Your task to perform on an android device: What's the weather going to be this weekend? Image 0: 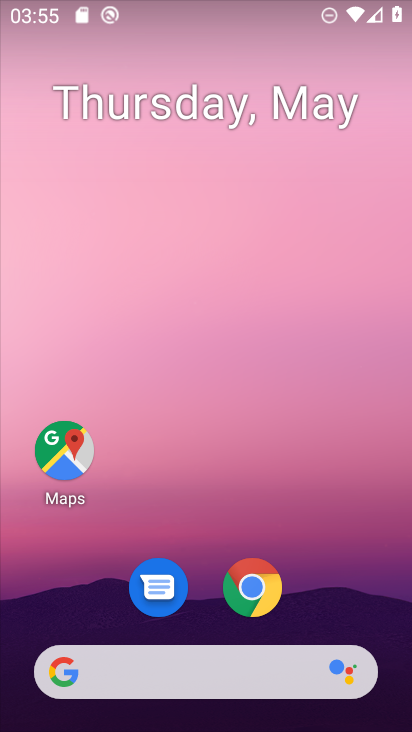
Step 0: click (234, 674)
Your task to perform on an android device: What's the weather going to be this weekend? Image 1: 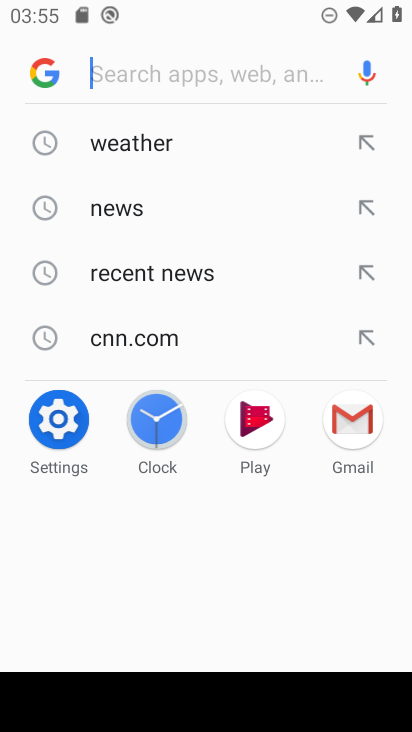
Step 1: click (186, 144)
Your task to perform on an android device: What's the weather going to be this weekend? Image 2: 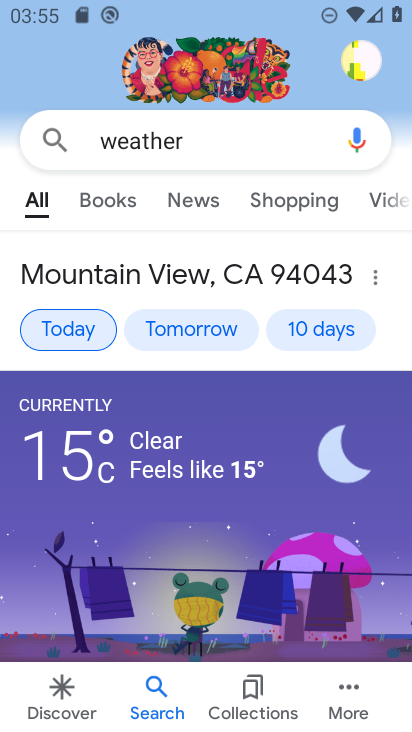
Step 2: click (329, 332)
Your task to perform on an android device: What's the weather going to be this weekend? Image 3: 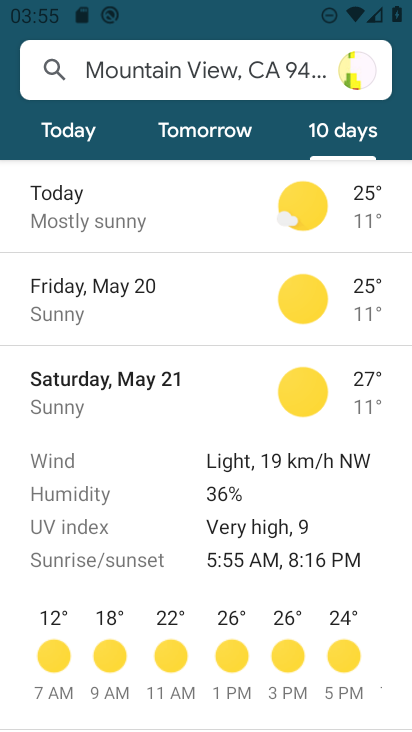
Step 3: task complete